Your task to perform on an android device: change timer sound Image 0: 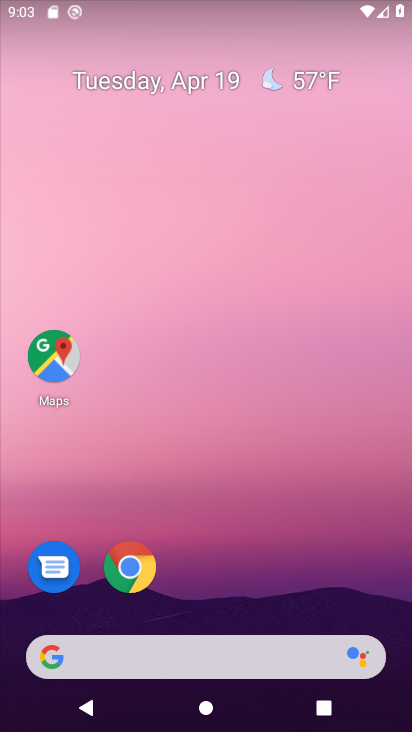
Step 0: drag from (279, 484) to (261, 203)
Your task to perform on an android device: change timer sound Image 1: 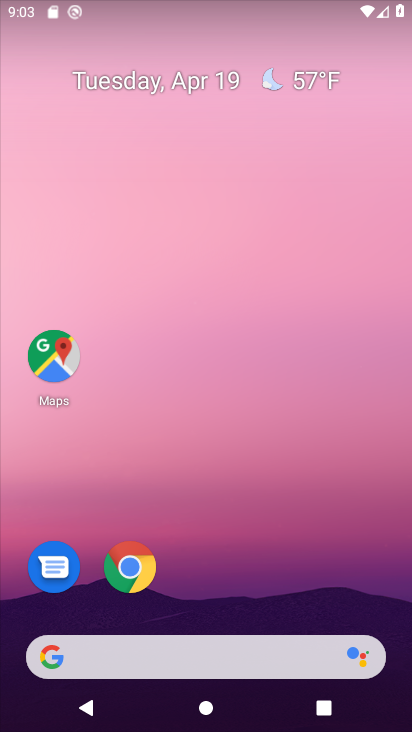
Step 1: drag from (274, 704) to (279, 70)
Your task to perform on an android device: change timer sound Image 2: 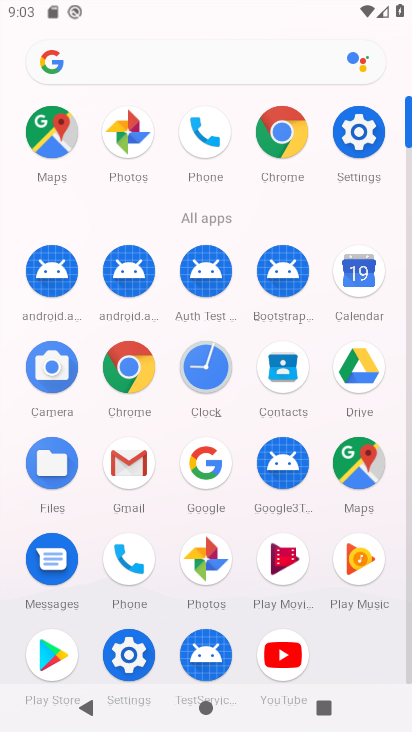
Step 2: click (213, 369)
Your task to perform on an android device: change timer sound Image 3: 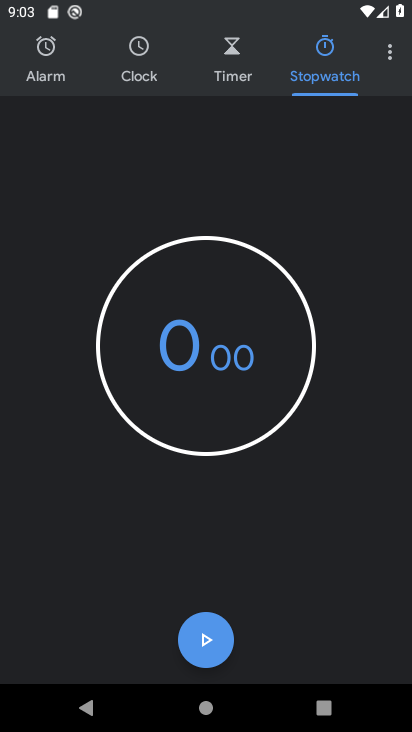
Step 3: click (393, 61)
Your task to perform on an android device: change timer sound Image 4: 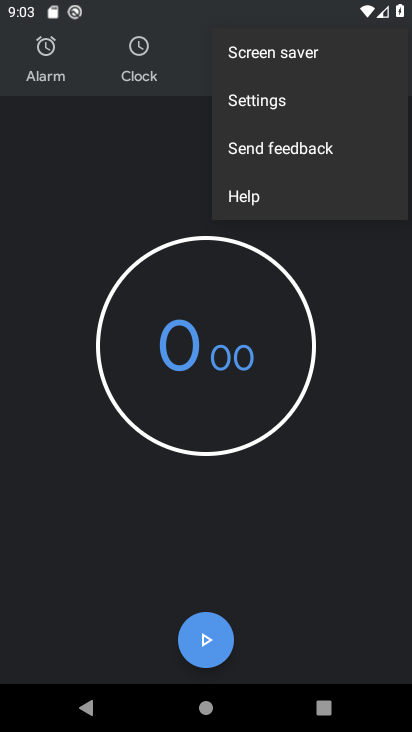
Step 4: click (310, 109)
Your task to perform on an android device: change timer sound Image 5: 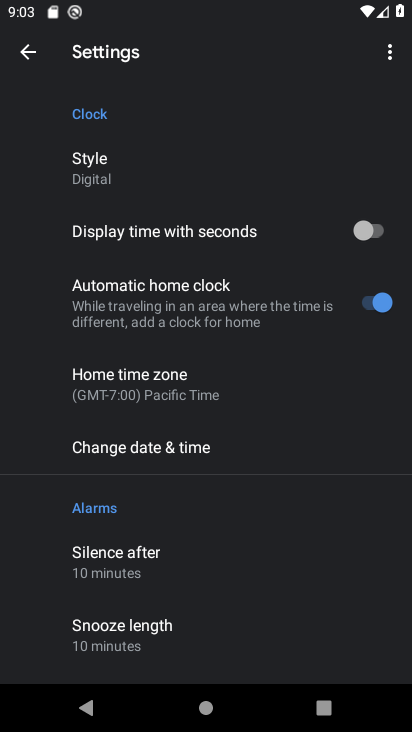
Step 5: drag from (267, 557) to (297, 20)
Your task to perform on an android device: change timer sound Image 6: 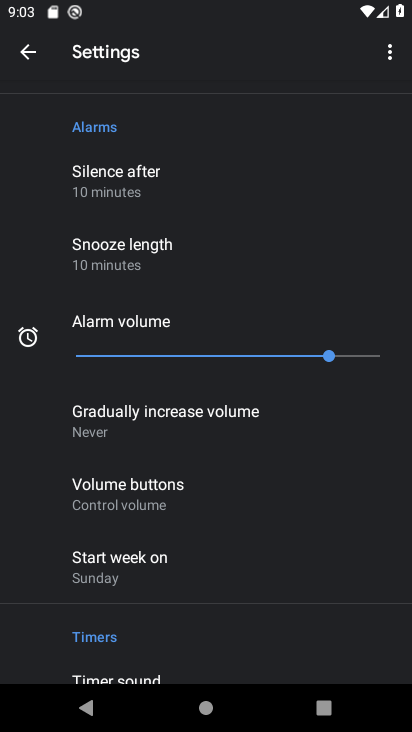
Step 6: drag from (259, 536) to (282, 93)
Your task to perform on an android device: change timer sound Image 7: 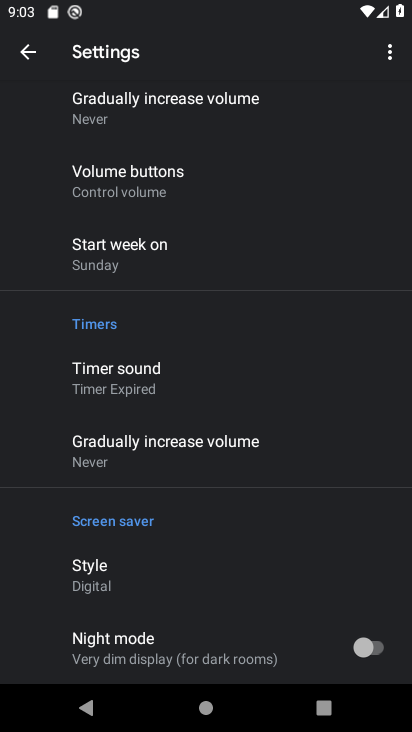
Step 7: click (169, 373)
Your task to perform on an android device: change timer sound Image 8: 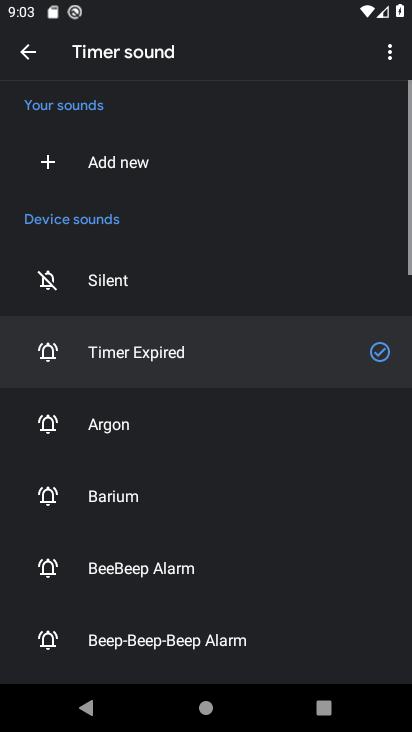
Step 8: click (174, 489)
Your task to perform on an android device: change timer sound Image 9: 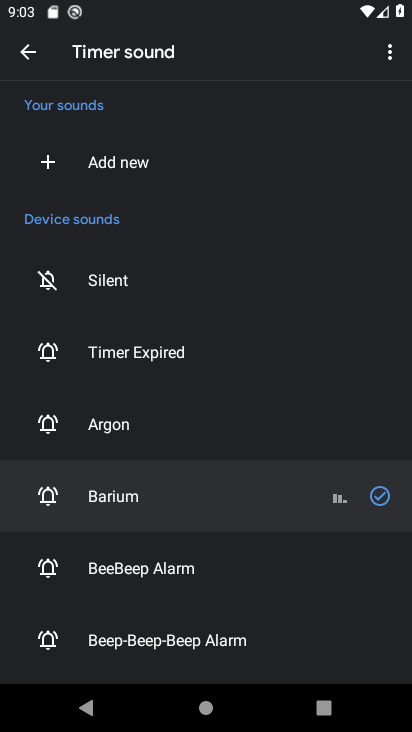
Step 9: task complete